Your task to perform on an android device: Open Yahoo.com Image 0: 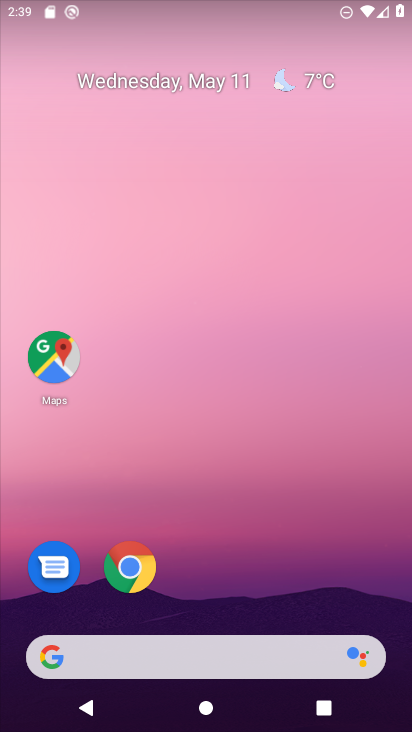
Step 0: click (141, 576)
Your task to perform on an android device: Open Yahoo.com Image 1: 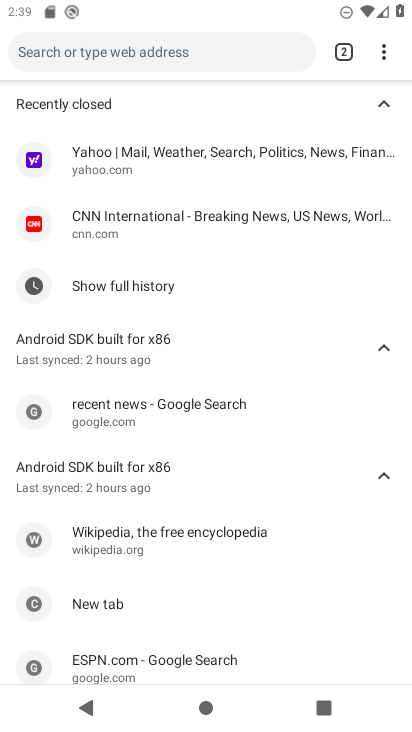
Step 1: click (348, 52)
Your task to perform on an android device: Open Yahoo.com Image 2: 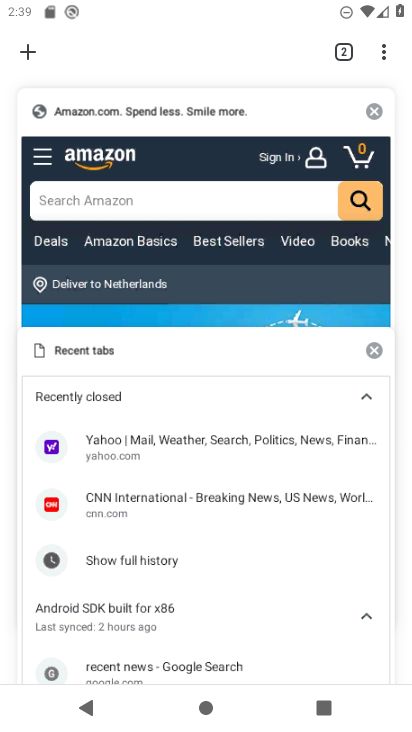
Step 2: click (373, 113)
Your task to perform on an android device: Open Yahoo.com Image 3: 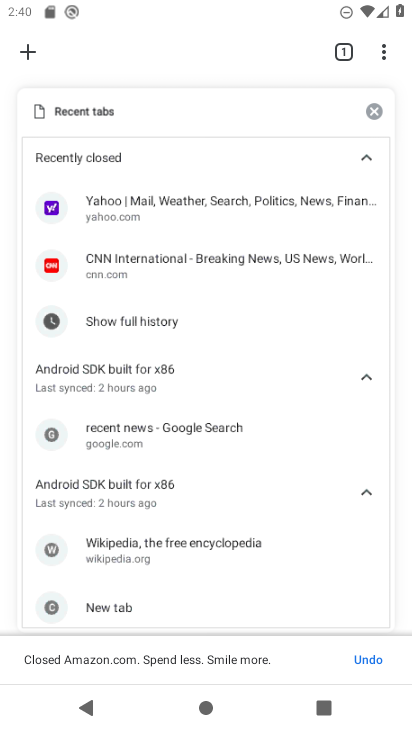
Step 3: click (371, 113)
Your task to perform on an android device: Open Yahoo.com Image 4: 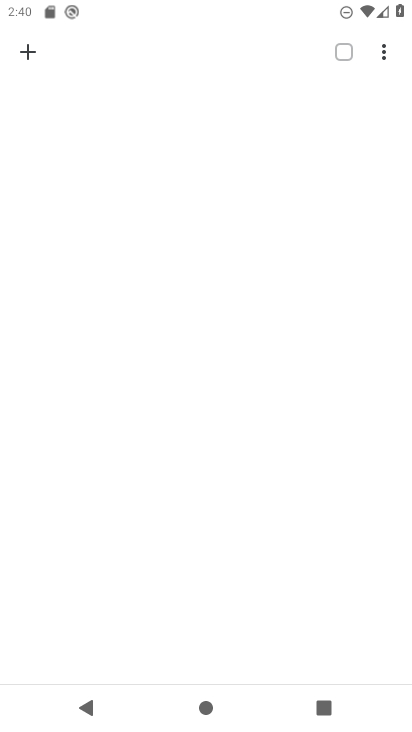
Step 4: click (21, 56)
Your task to perform on an android device: Open Yahoo.com Image 5: 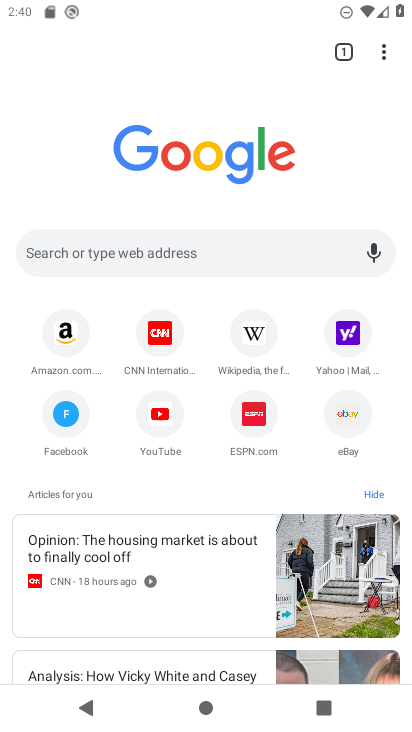
Step 5: click (353, 335)
Your task to perform on an android device: Open Yahoo.com Image 6: 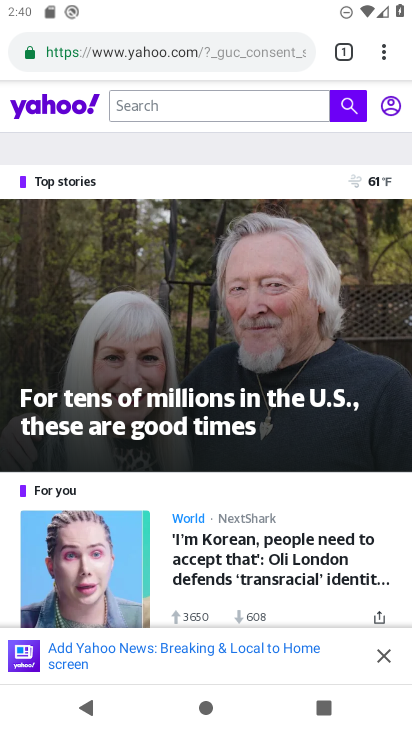
Step 6: task complete